Your task to perform on an android device: Go to settings Image 0: 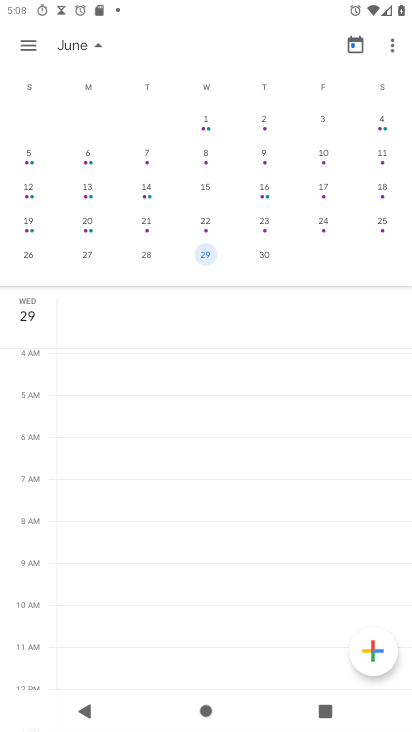
Step 0: press home button
Your task to perform on an android device: Go to settings Image 1: 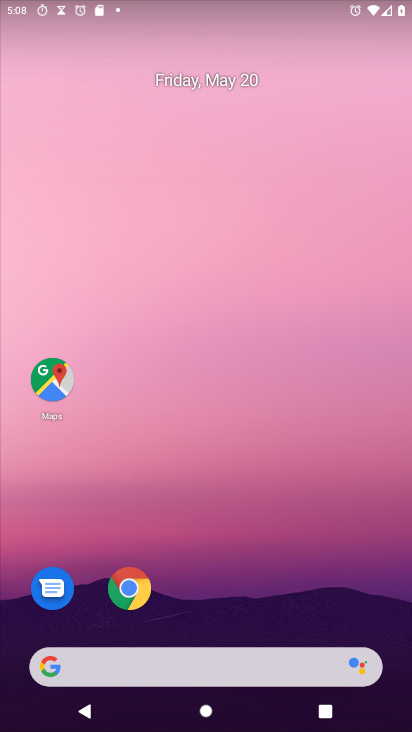
Step 1: drag from (217, 516) to (214, 163)
Your task to perform on an android device: Go to settings Image 2: 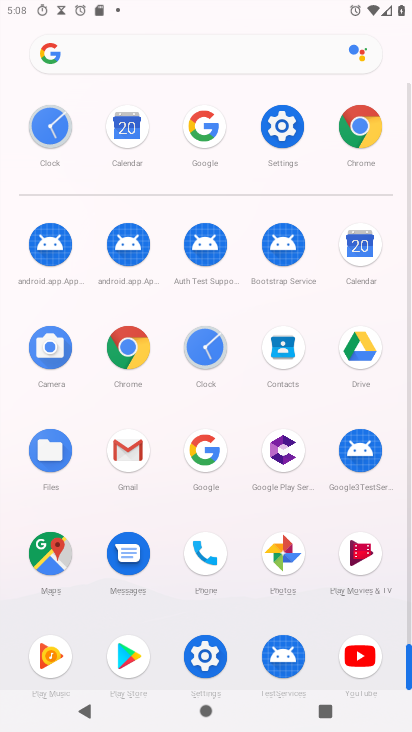
Step 2: click (259, 128)
Your task to perform on an android device: Go to settings Image 3: 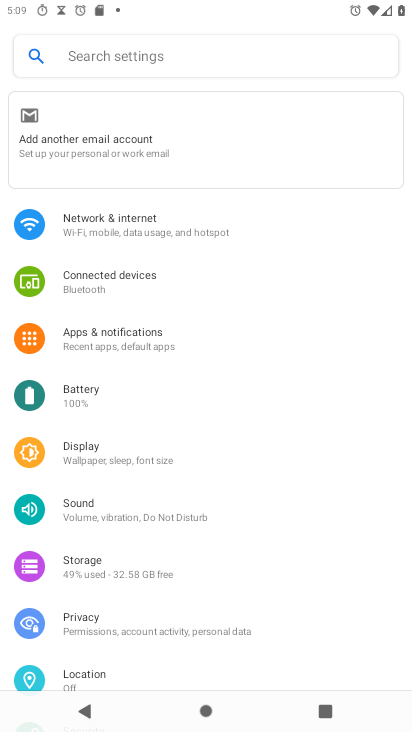
Step 3: task complete